Your task to perform on an android device: turn off sleep mode Image 0: 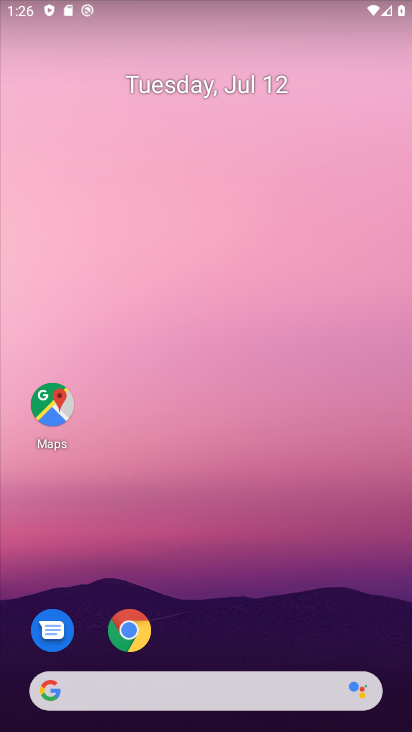
Step 0: drag from (374, 631) to (319, 110)
Your task to perform on an android device: turn off sleep mode Image 1: 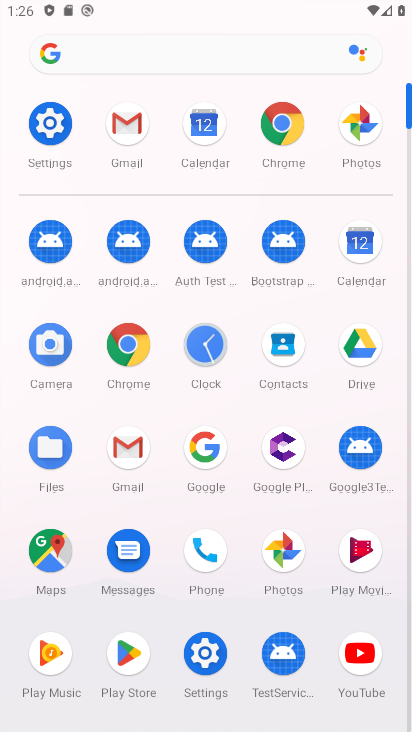
Step 1: click (204, 655)
Your task to perform on an android device: turn off sleep mode Image 2: 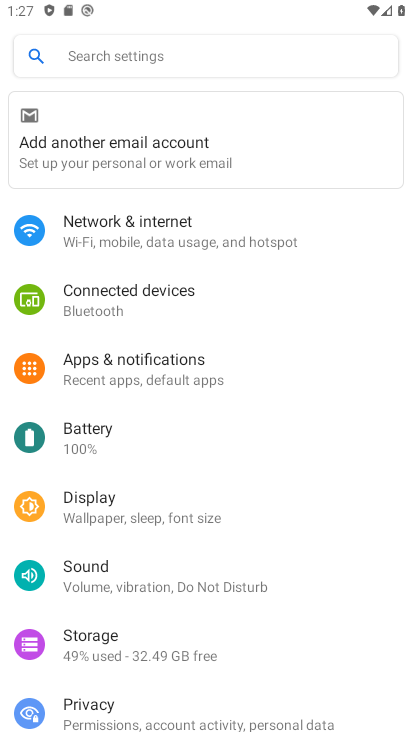
Step 2: click (88, 491)
Your task to perform on an android device: turn off sleep mode Image 3: 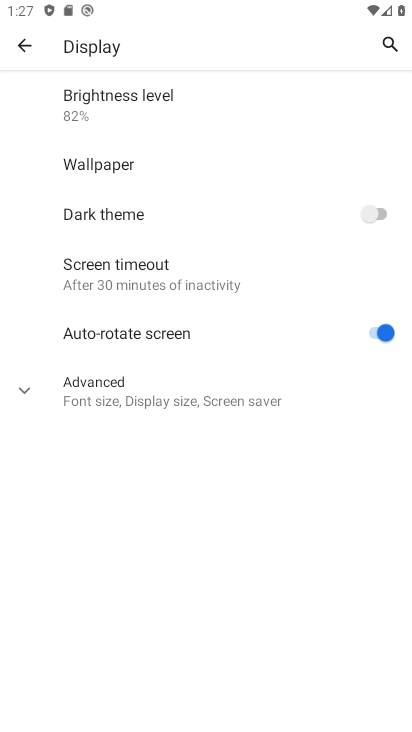
Step 3: click (35, 406)
Your task to perform on an android device: turn off sleep mode Image 4: 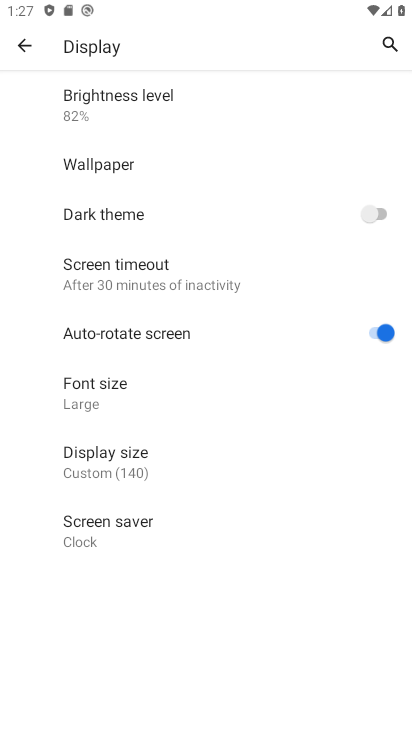
Step 4: task complete